Your task to perform on an android device: Open calendar and show me the second week of next month Image 0: 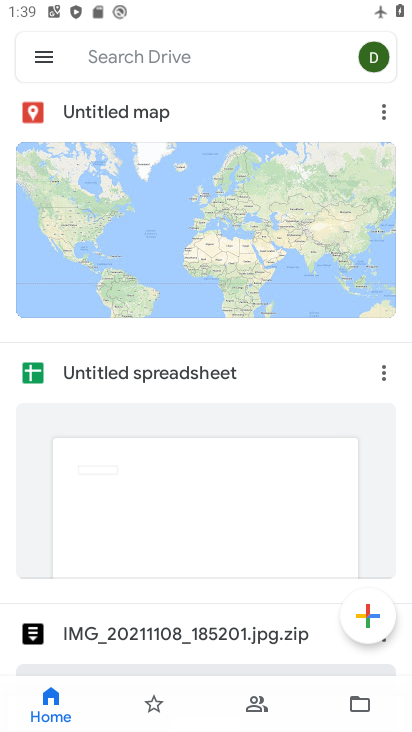
Step 0: press home button
Your task to perform on an android device: Open calendar and show me the second week of next month Image 1: 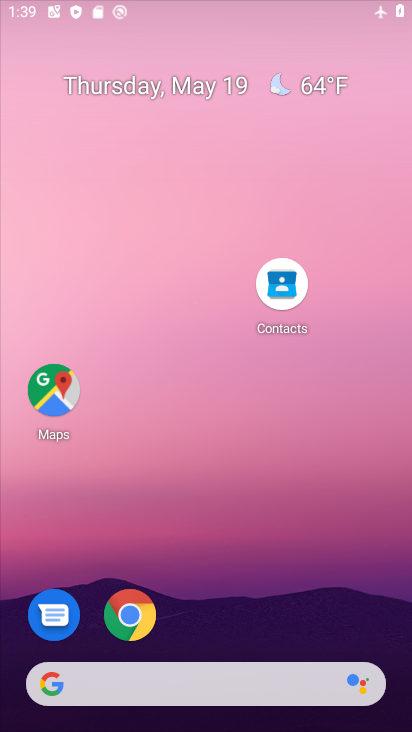
Step 1: drag from (261, 534) to (289, 96)
Your task to perform on an android device: Open calendar and show me the second week of next month Image 2: 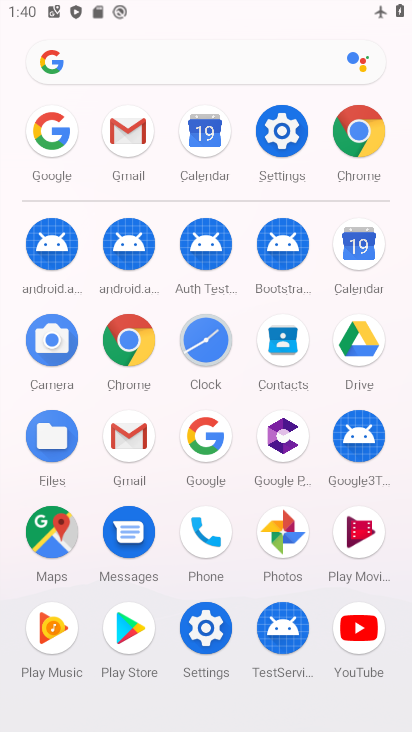
Step 2: click (371, 251)
Your task to perform on an android device: Open calendar and show me the second week of next month Image 3: 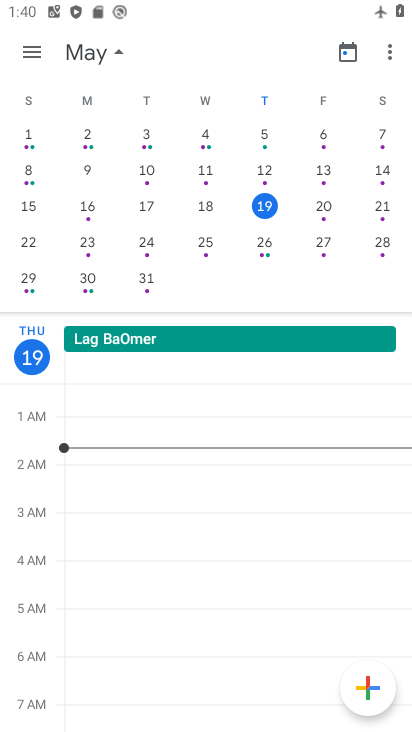
Step 3: drag from (362, 234) to (5, 204)
Your task to perform on an android device: Open calendar and show me the second week of next month Image 4: 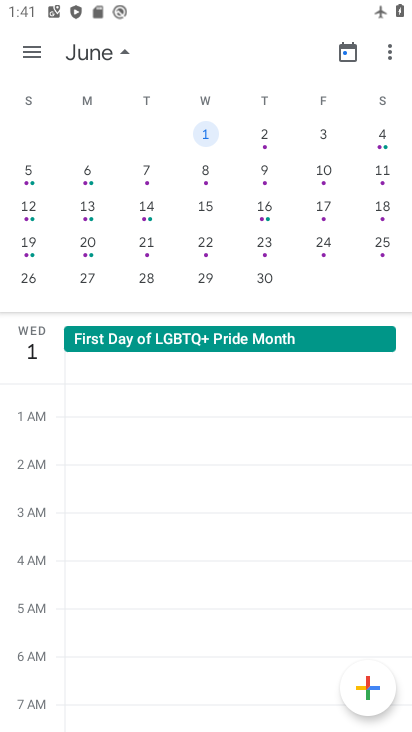
Step 4: drag from (348, 216) to (0, 241)
Your task to perform on an android device: Open calendar and show me the second week of next month Image 5: 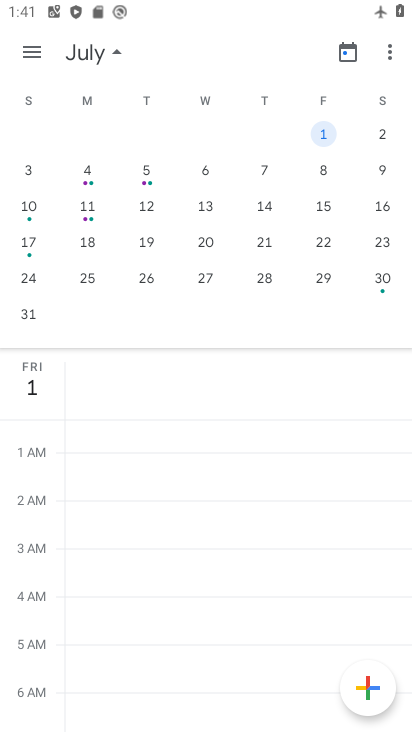
Step 5: click (28, 221)
Your task to perform on an android device: Open calendar and show me the second week of next month Image 6: 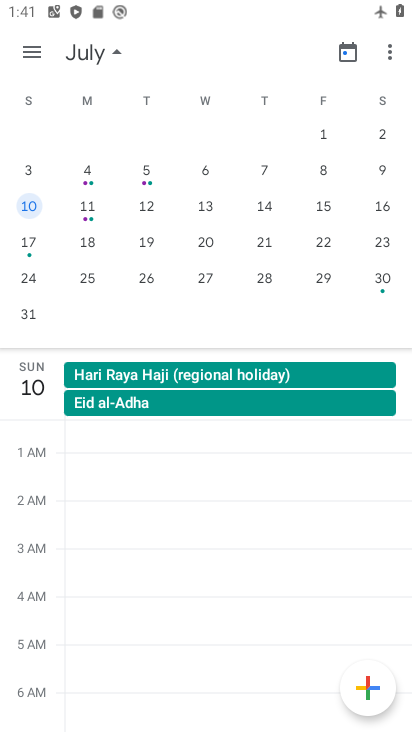
Step 6: task complete